Your task to perform on an android device: Is it going to rain tomorrow? Image 0: 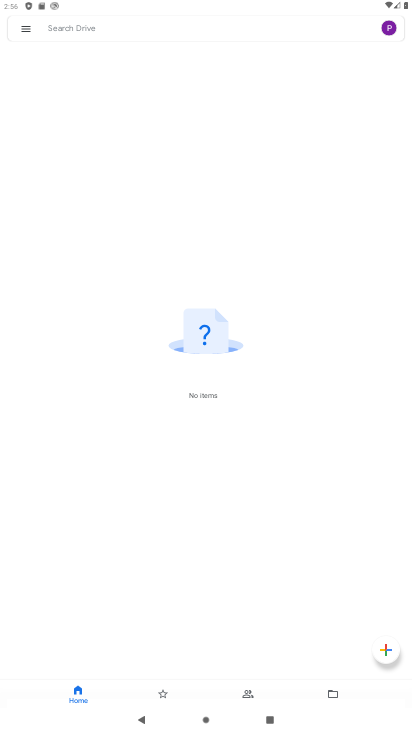
Step 0: press home button
Your task to perform on an android device: Is it going to rain tomorrow? Image 1: 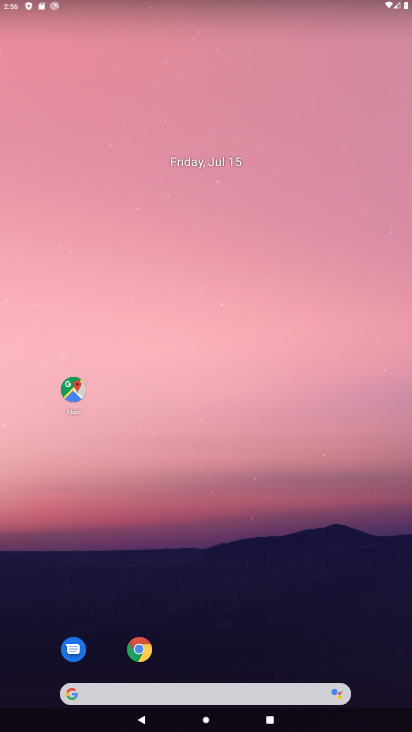
Step 1: drag from (309, 627) to (296, 142)
Your task to perform on an android device: Is it going to rain tomorrow? Image 2: 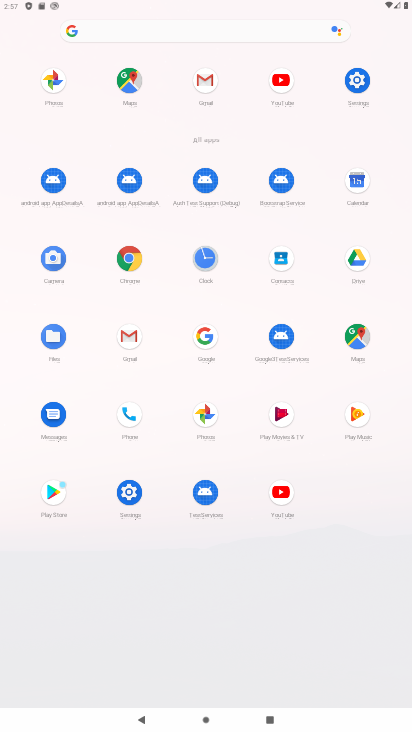
Step 2: click (125, 259)
Your task to perform on an android device: Is it going to rain tomorrow? Image 3: 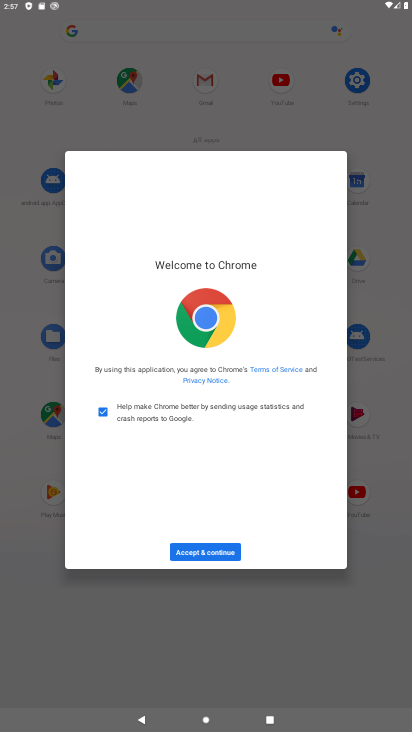
Step 3: click (207, 540)
Your task to perform on an android device: Is it going to rain tomorrow? Image 4: 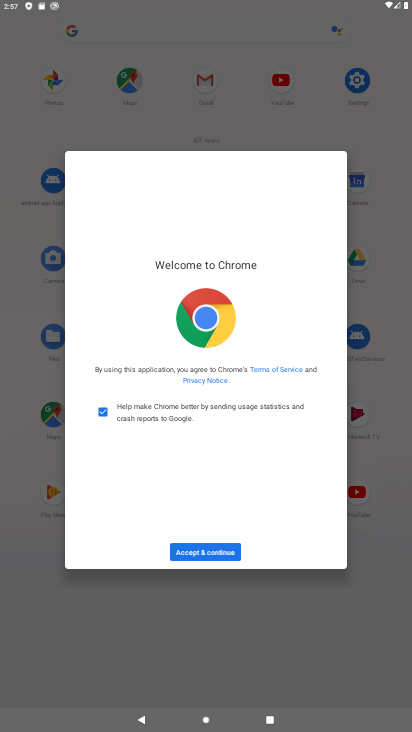
Step 4: click (216, 554)
Your task to perform on an android device: Is it going to rain tomorrow? Image 5: 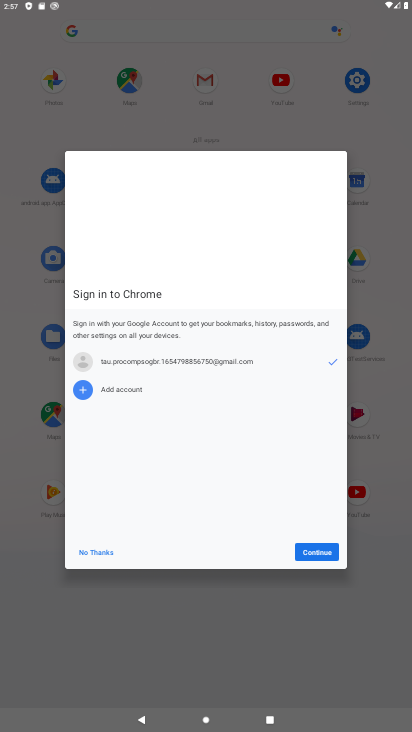
Step 5: click (306, 552)
Your task to perform on an android device: Is it going to rain tomorrow? Image 6: 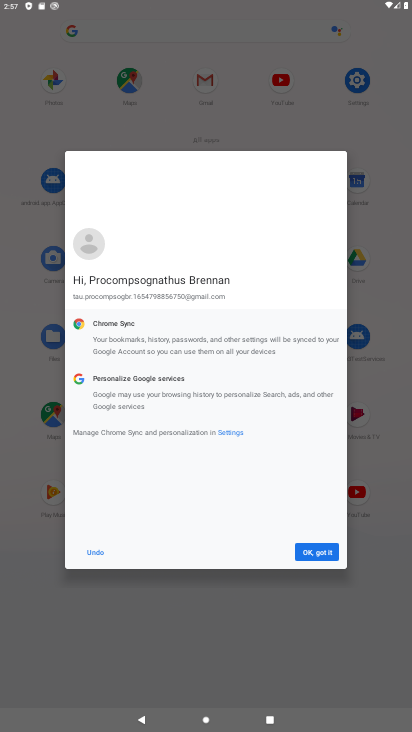
Step 6: click (306, 549)
Your task to perform on an android device: Is it going to rain tomorrow? Image 7: 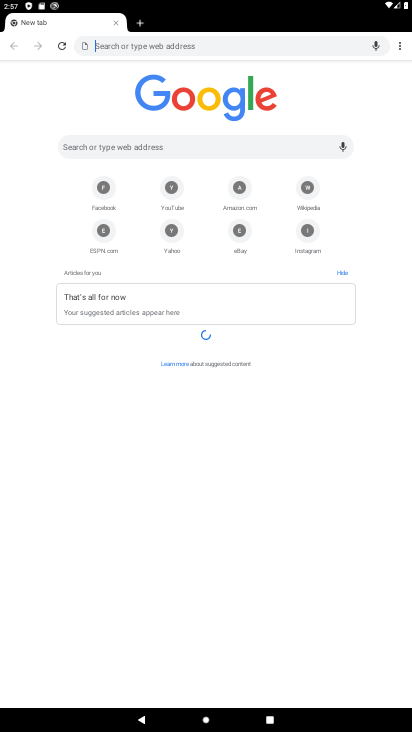
Step 7: click (216, 43)
Your task to perform on an android device: Is it going to rain tomorrow? Image 8: 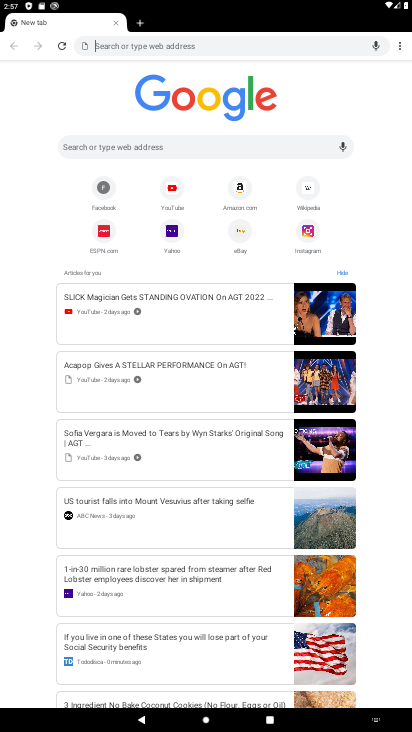
Step 8: type "weather"
Your task to perform on an android device: Is it going to rain tomorrow? Image 9: 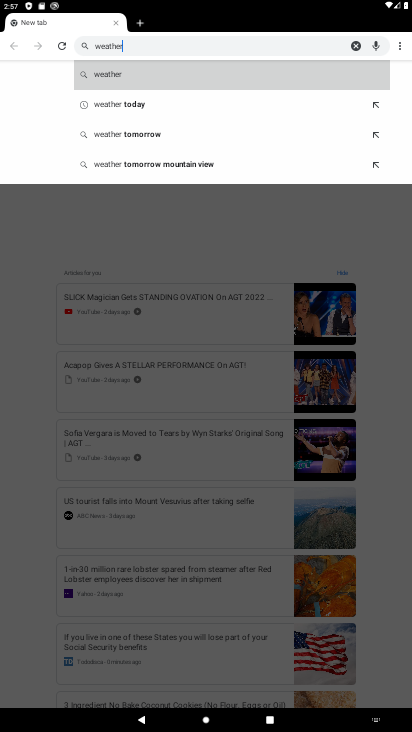
Step 9: click (124, 71)
Your task to perform on an android device: Is it going to rain tomorrow? Image 10: 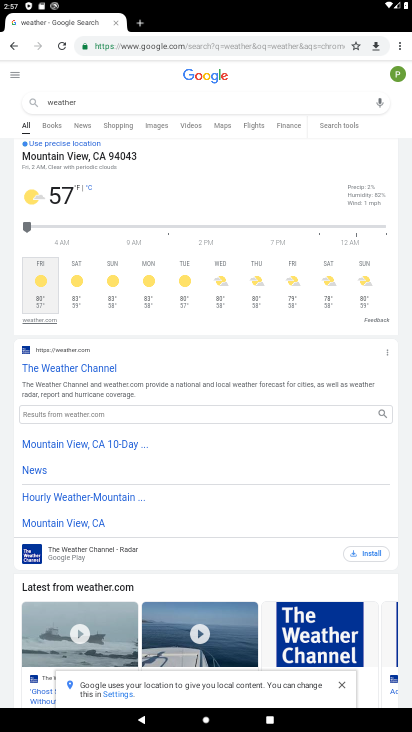
Step 10: click (75, 282)
Your task to perform on an android device: Is it going to rain tomorrow? Image 11: 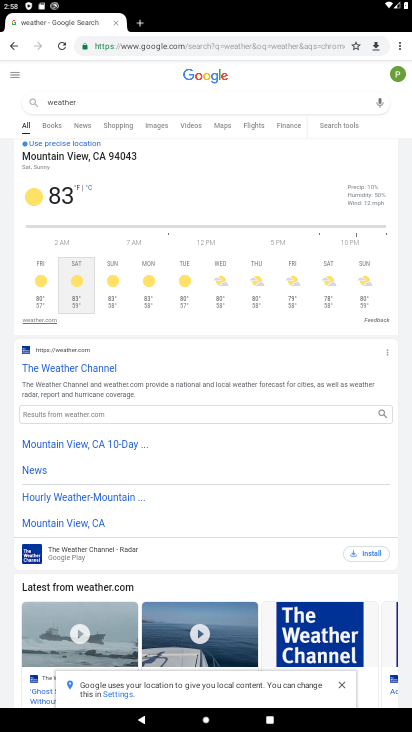
Step 11: task complete